Your task to perform on an android device: What's a good restaurant in Los Angeles? Image 0: 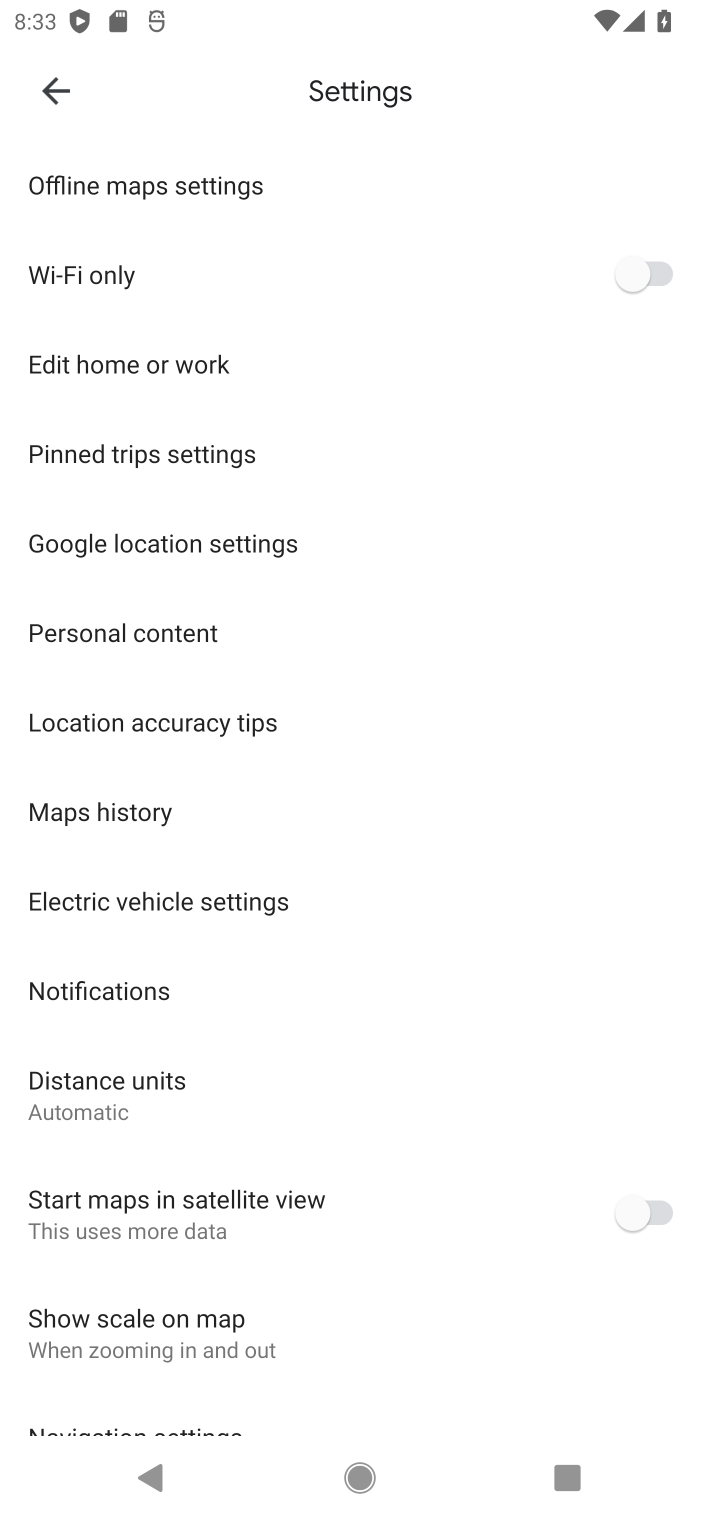
Step 0: press home button
Your task to perform on an android device: What's a good restaurant in Los Angeles? Image 1: 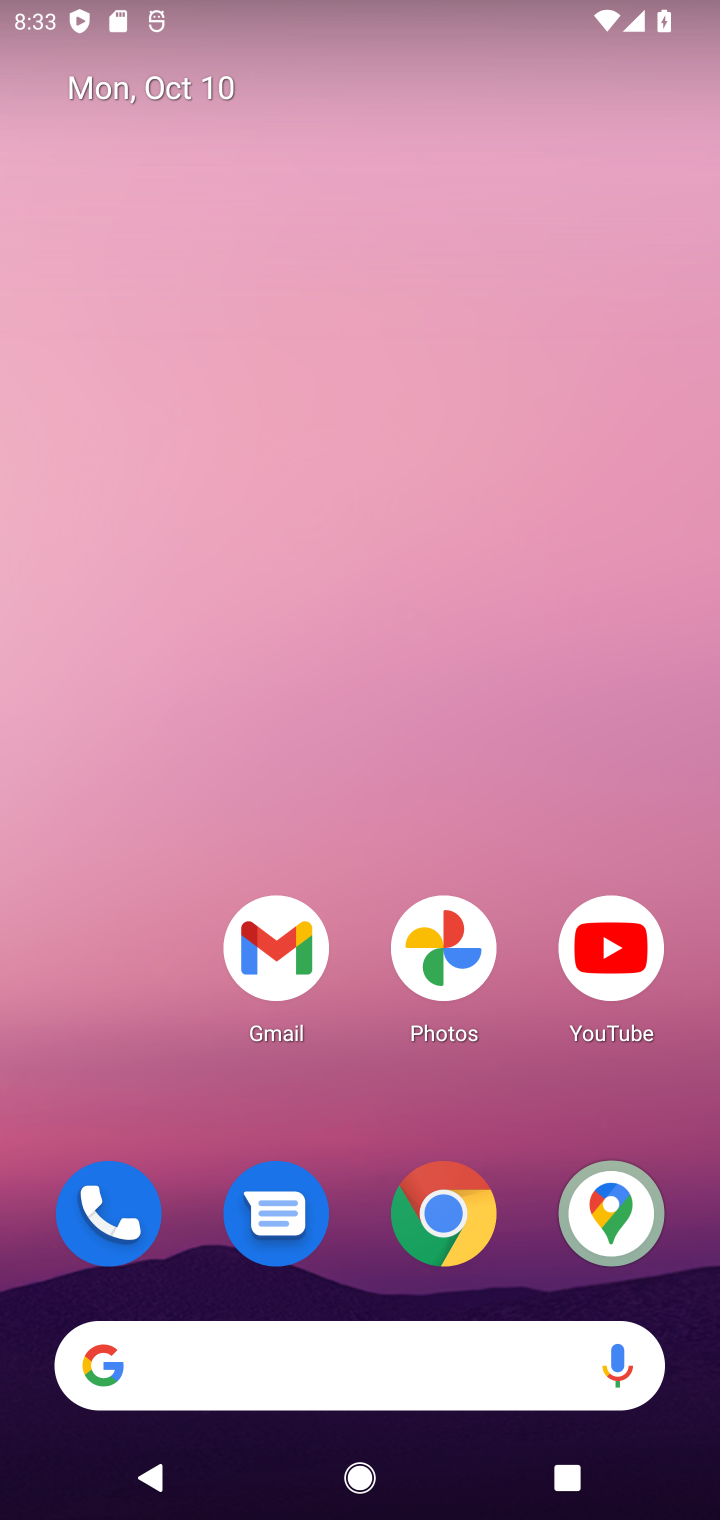
Step 1: click (209, 1391)
Your task to perform on an android device: What's a good restaurant in Los Angeles? Image 2: 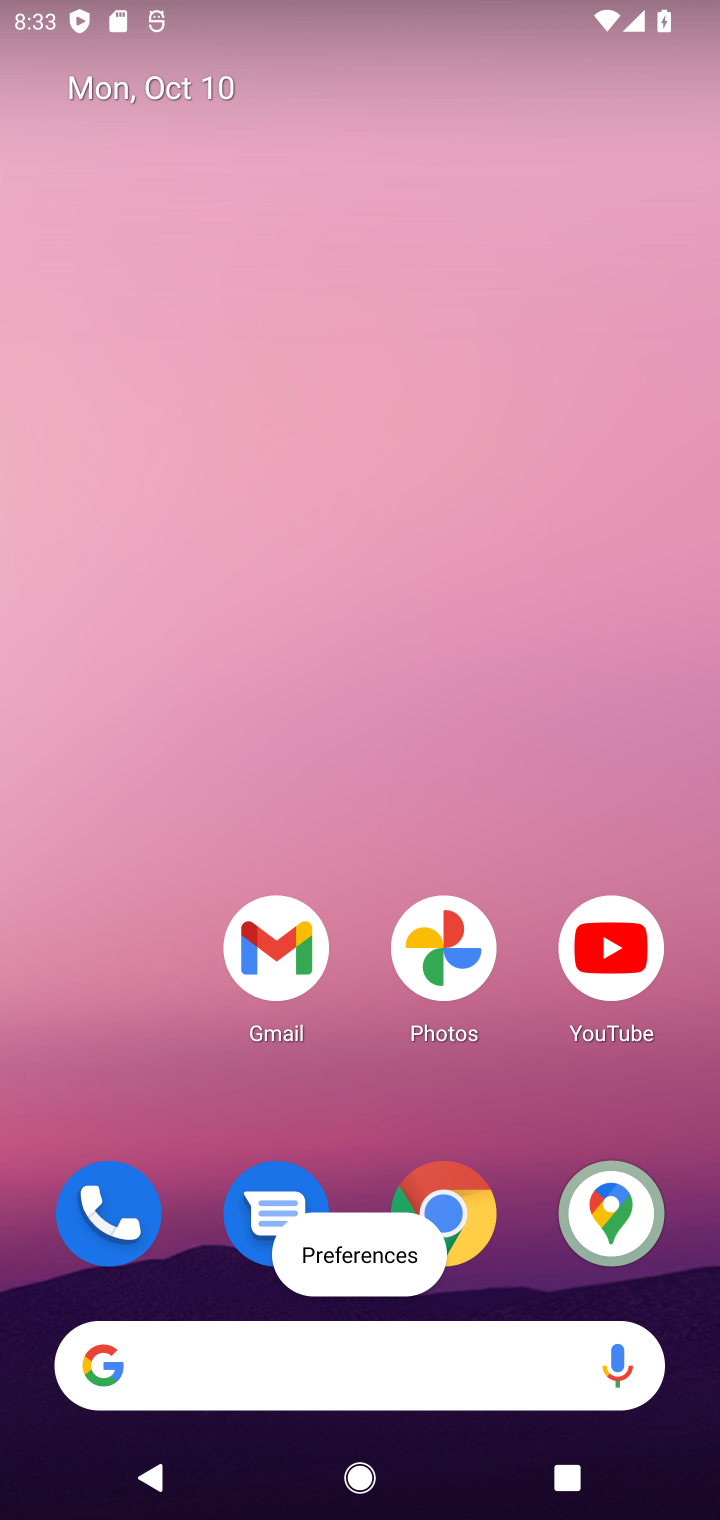
Step 2: click (307, 1361)
Your task to perform on an android device: What's a good restaurant in Los Angeles? Image 3: 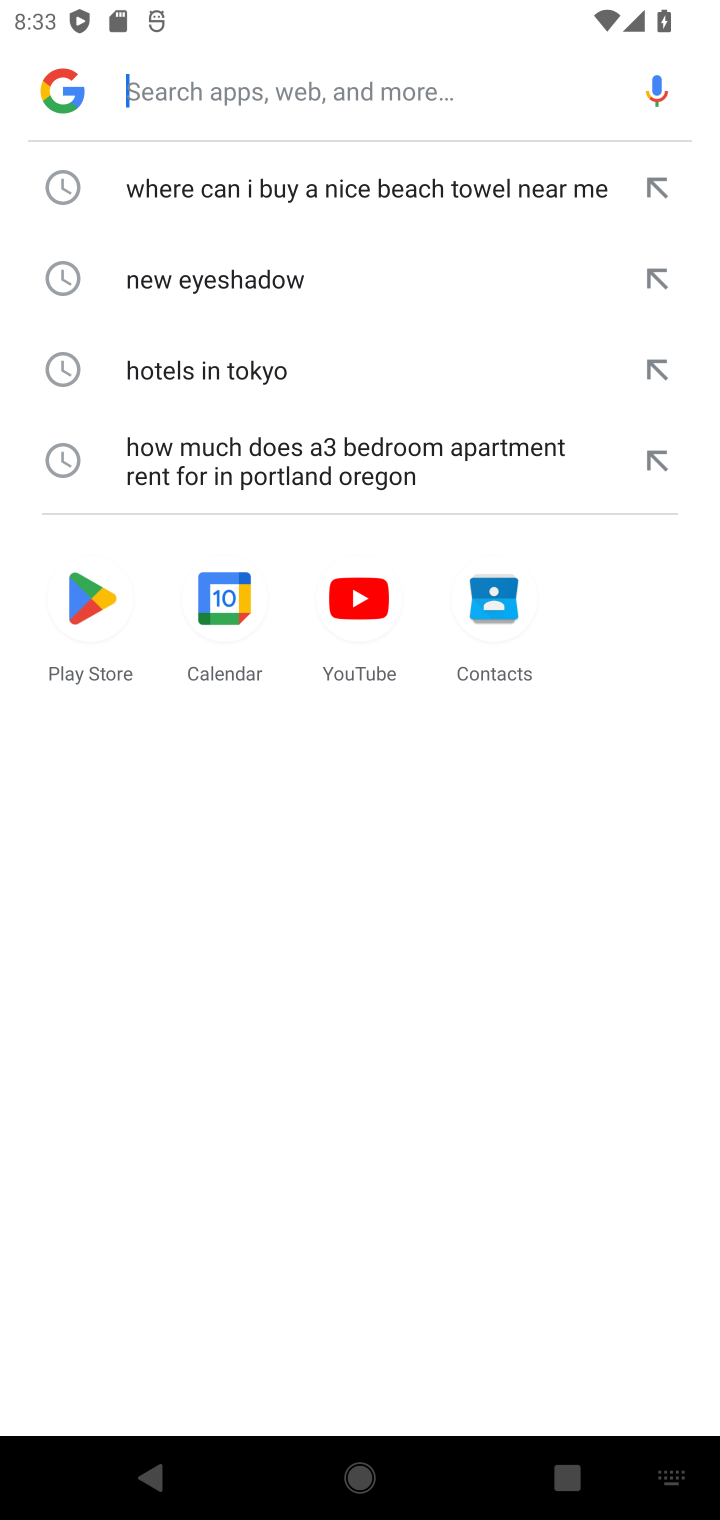
Step 3: click (247, 54)
Your task to perform on an android device: What's a good restaurant in Los Angeles? Image 4: 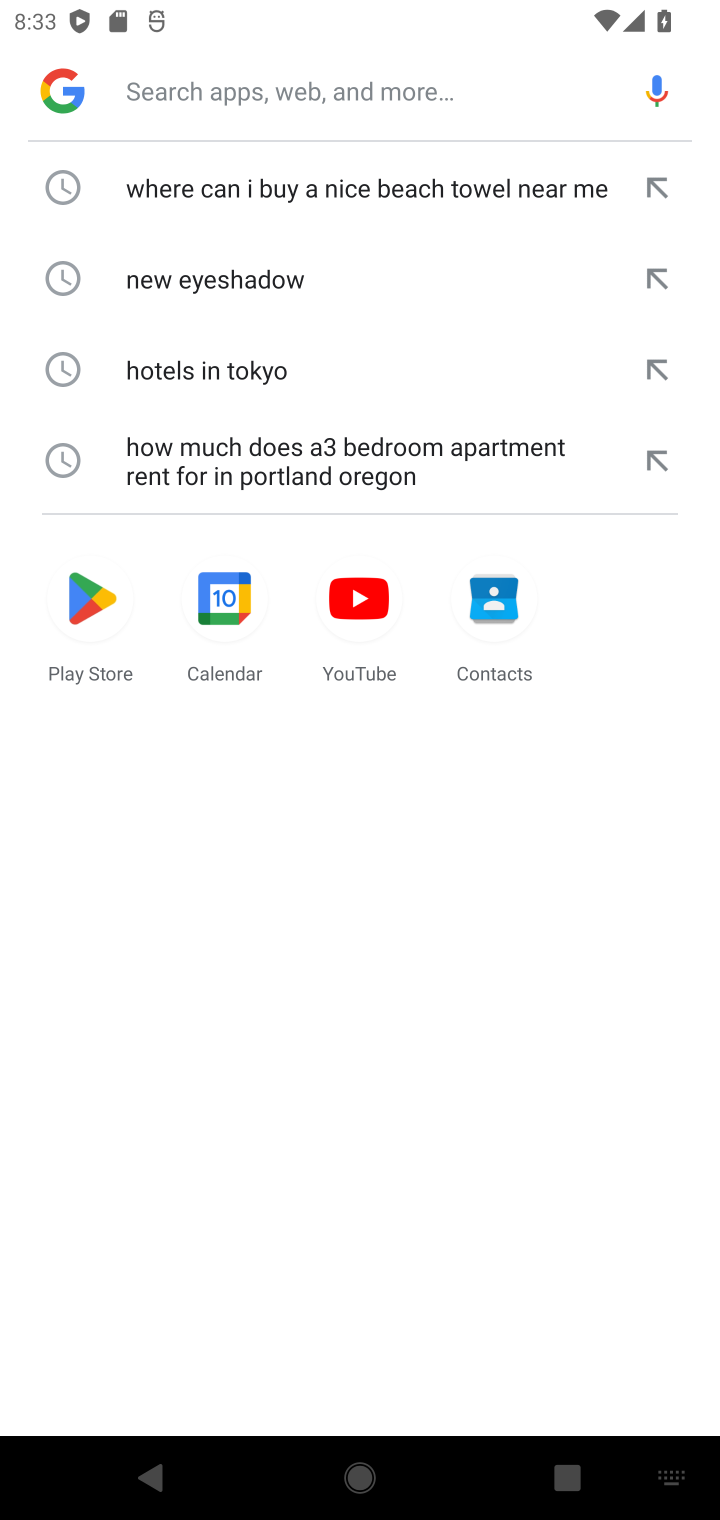
Step 4: click (226, 106)
Your task to perform on an android device: What's a good restaurant in Los Angeles? Image 5: 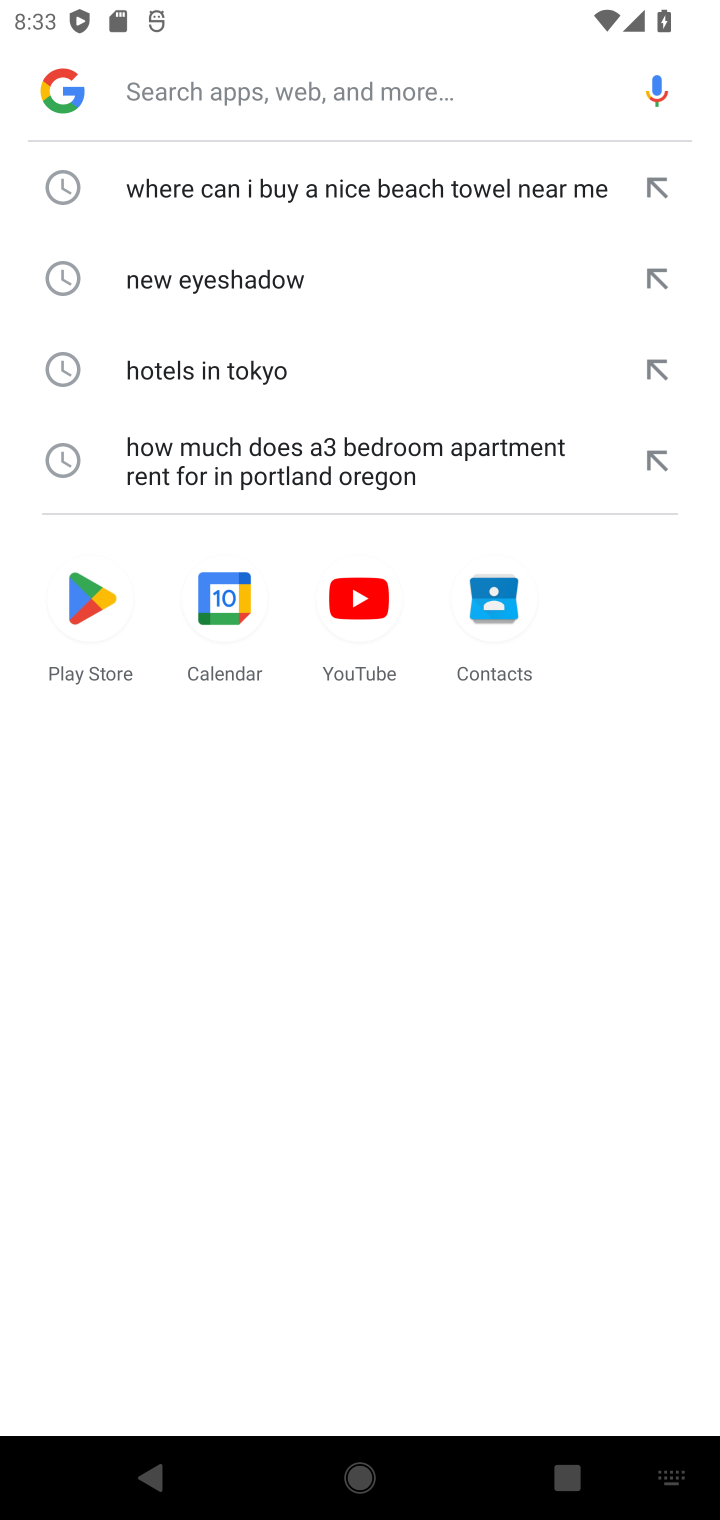
Step 5: type "What's a good restaurant in Los Angeles?"
Your task to perform on an android device: What's a good restaurant in Los Angeles? Image 6: 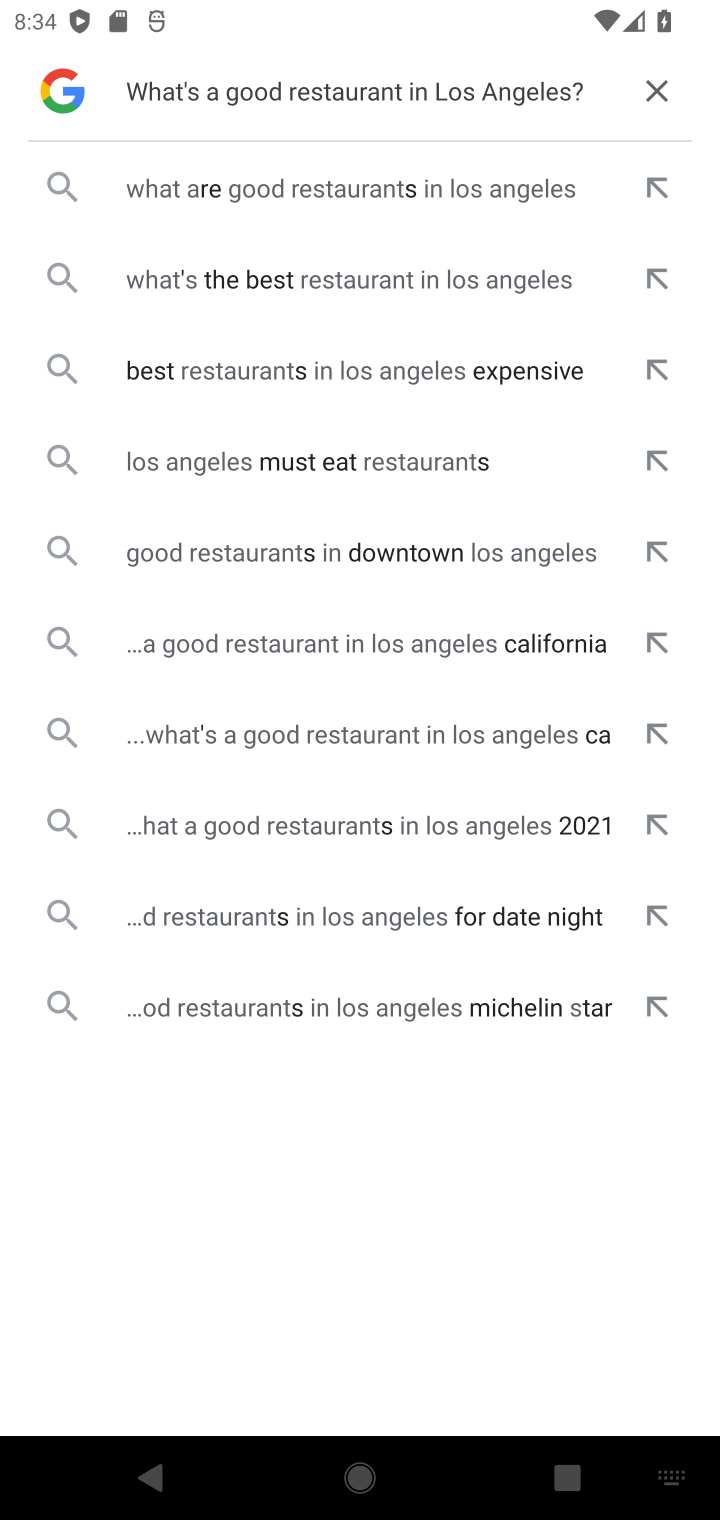
Step 6: click (286, 186)
Your task to perform on an android device: What's a good restaurant in Los Angeles? Image 7: 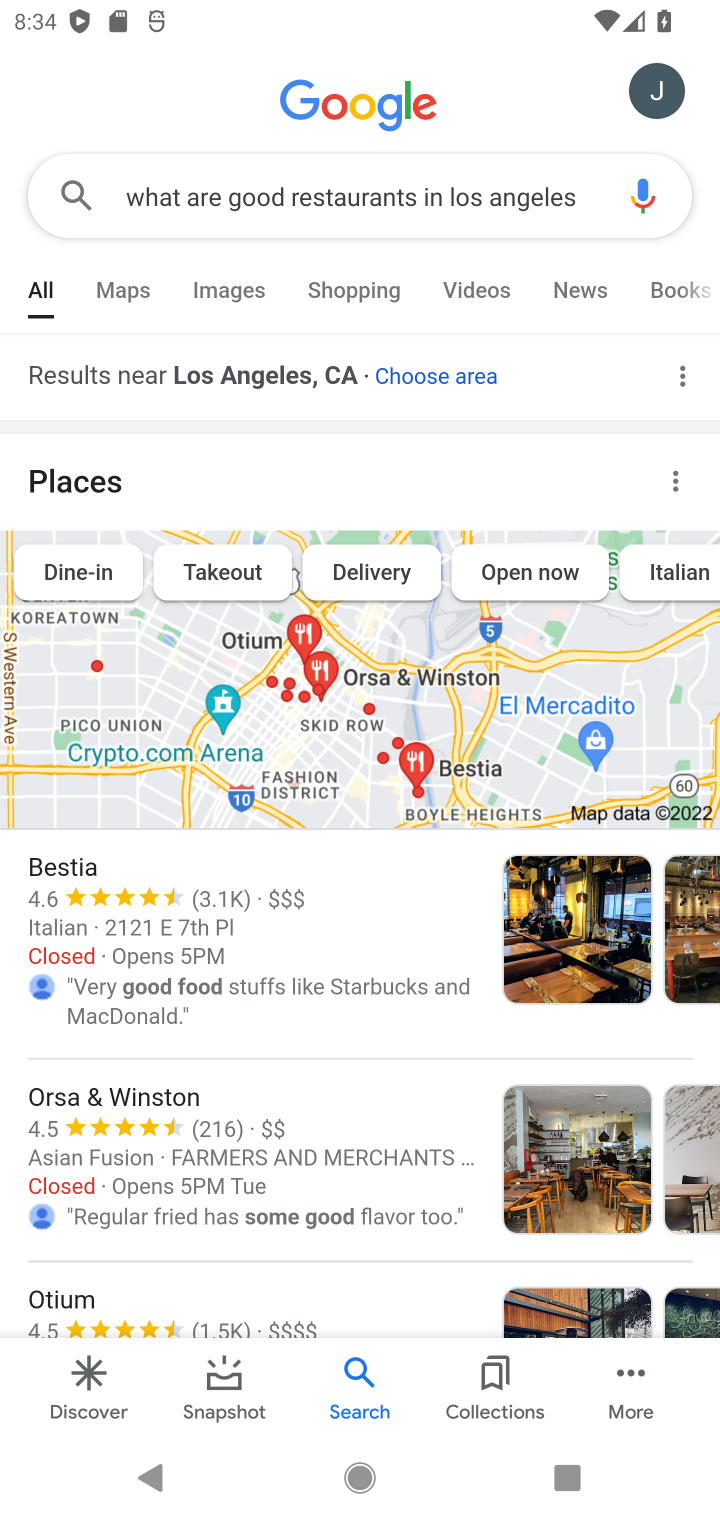
Step 7: task complete